Your task to perform on an android device: Open Youtube and go to the subscriptions tab Image 0: 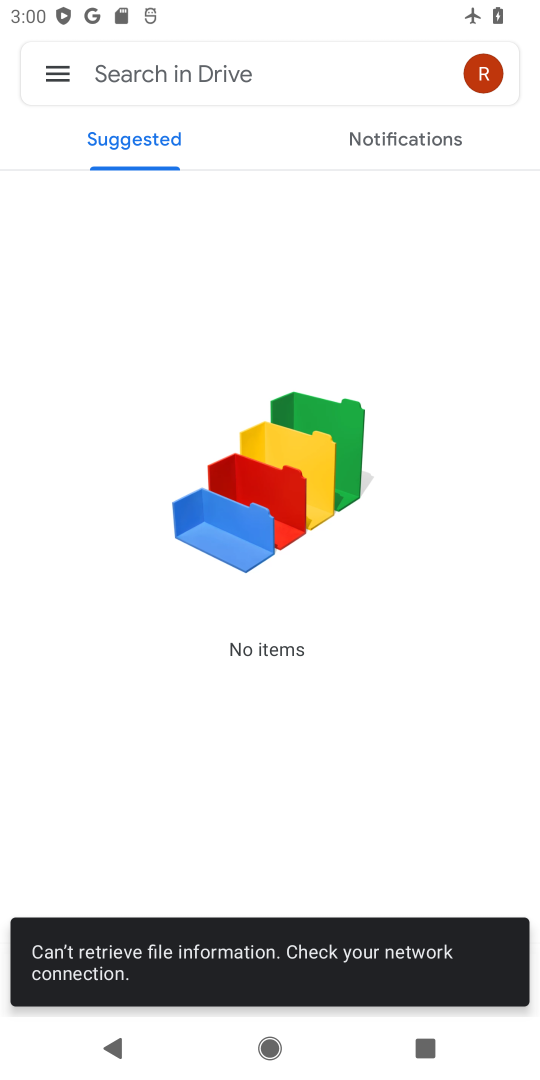
Step 0: press home button
Your task to perform on an android device: Open Youtube and go to the subscriptions tab Image 1: 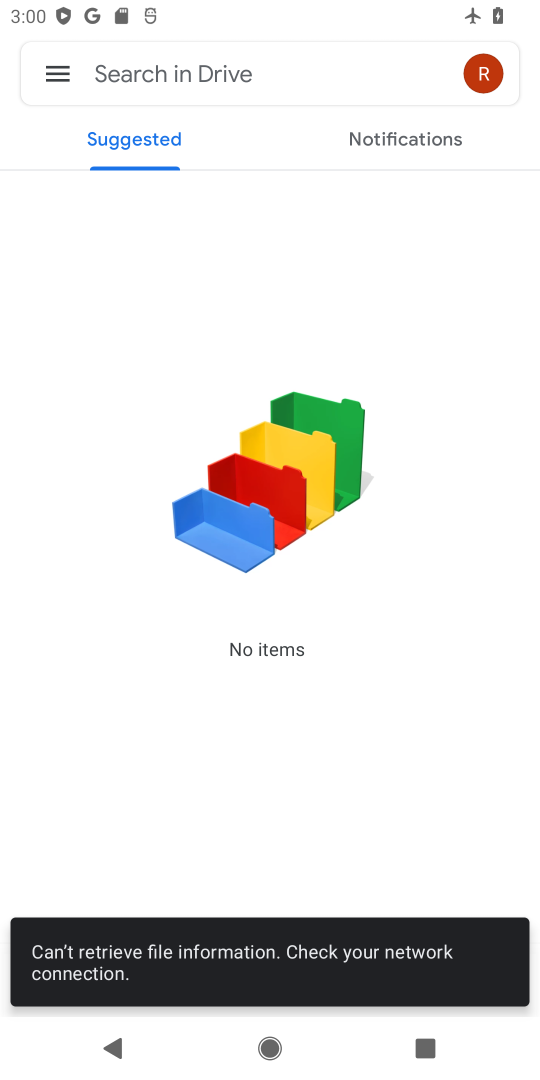
Step 1: press home button
Your task to perform on an android device: Open Youtube and go to the subscriptions tab Image 2: 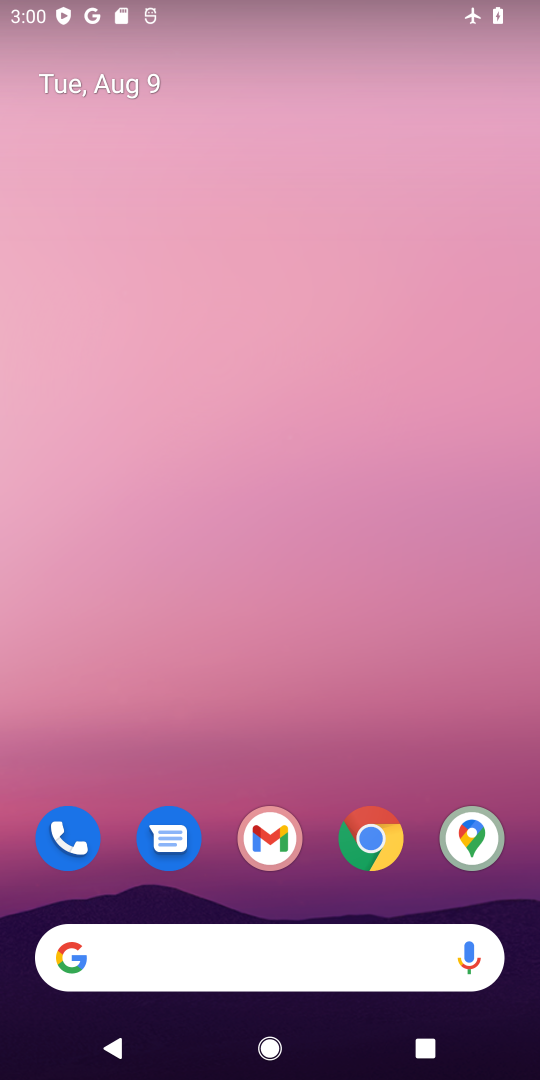
Step 2: drag from (337, 783) to (199, 961)
Your task to perform on an android device: Open Youtube and go to the subscriptions tab Image 3: 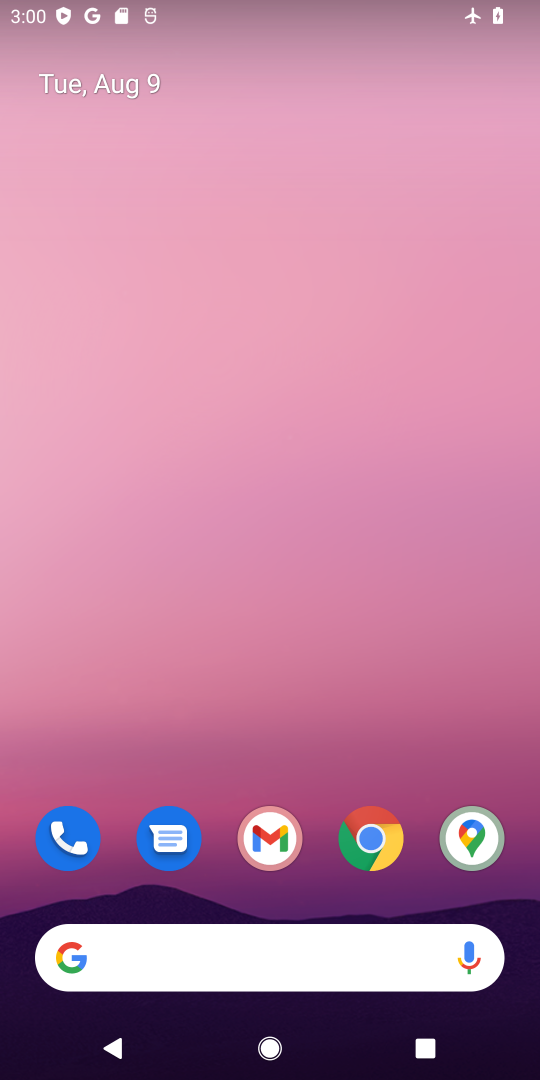
Step 3: drag from (207, 752) to (381, 19)
Your task to perform on an android device: Open Youtube and go to the subscriptions tab Image 4: 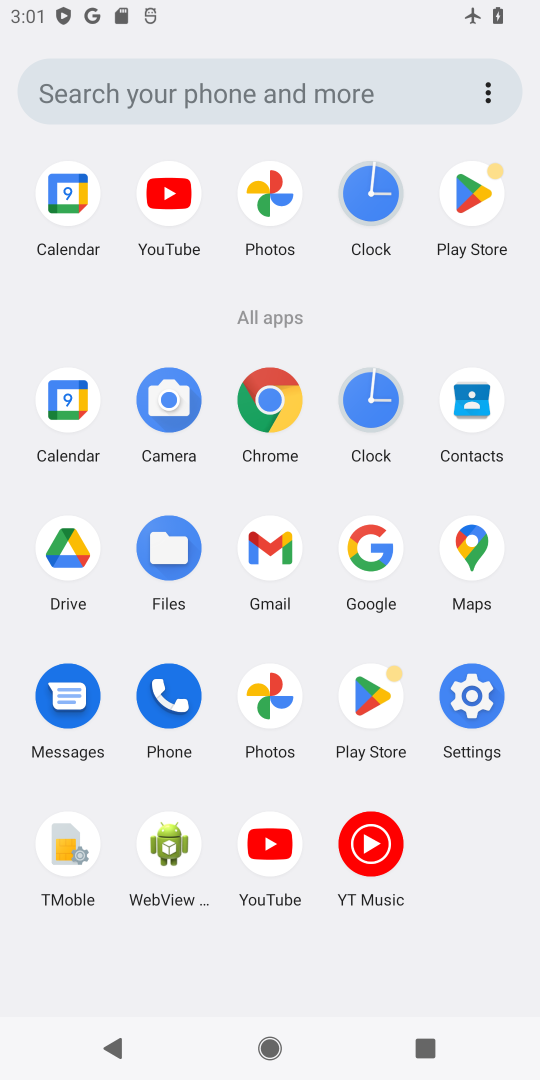
Step 4: click (263, 856)
Your task to perform on an android device: Open Youtube and go to the subscriptions tab Image 5: 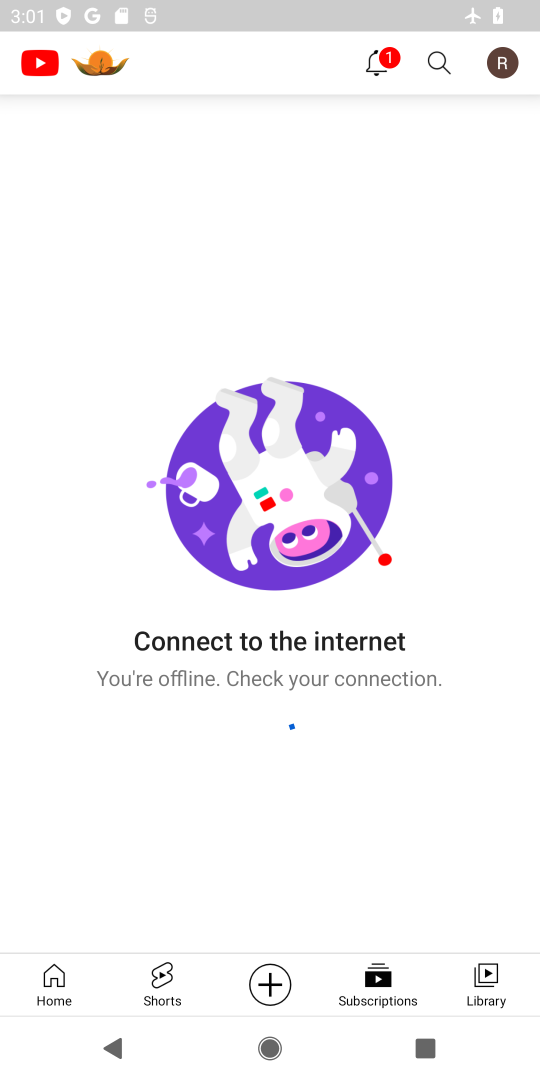
Step 5: click (375, 992)
Your task to perform on an android device: Open Youtube and go to the subscriptions tab Image 6: 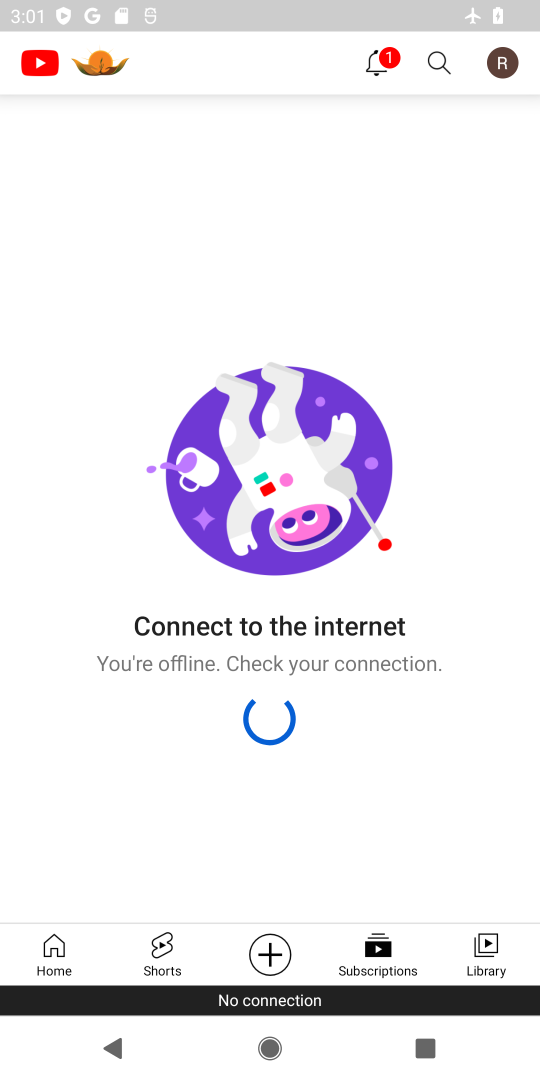
Step 6: click (370, 969)
Your task to perform on an android device: Open Youtube and go to the subscriptions tab Image 7: 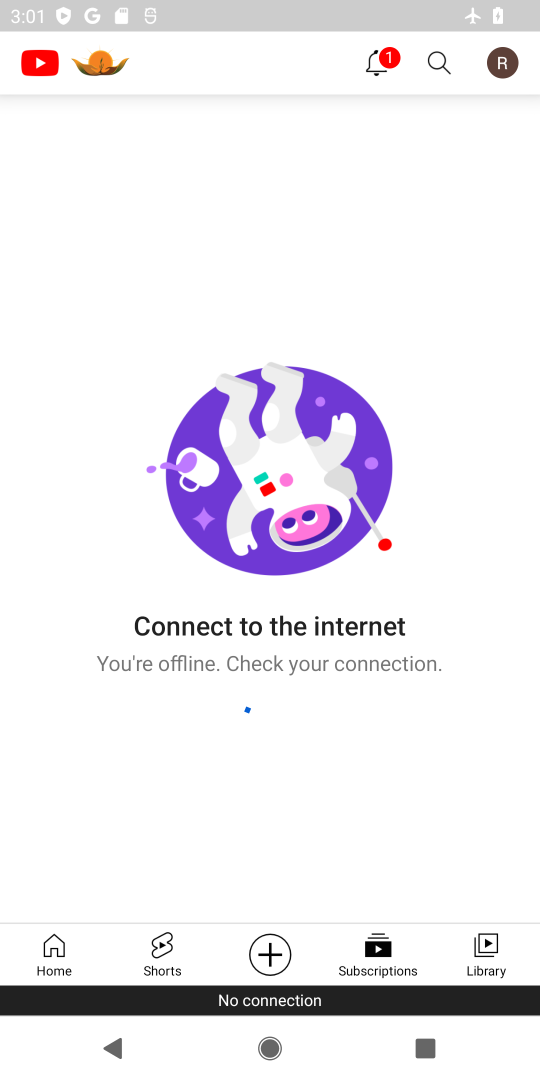
Step 7: task complete